Your task to perform on an android device: see creations saved in the google photos Image 0: 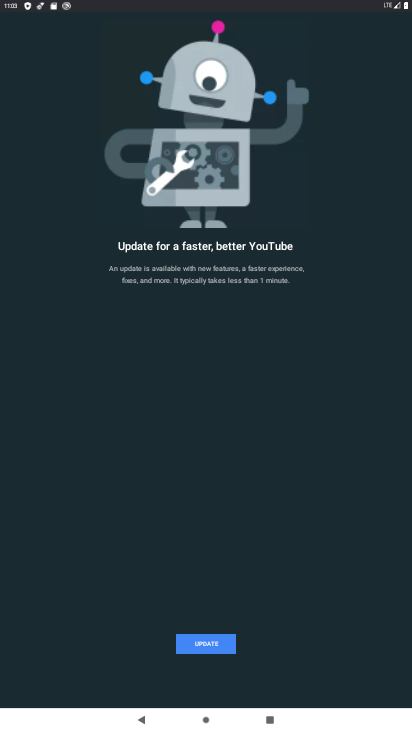
Step 0: press home button
Your task to perform on an android device: see creations saved in the google photos Image 1: 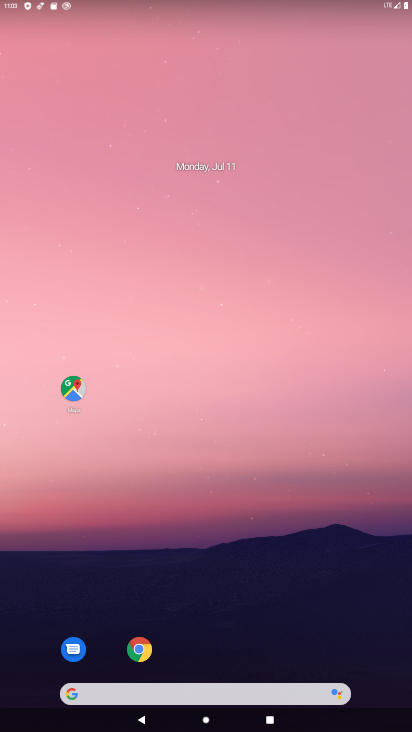
Step 1: drag from (335, 652) to (302, 145)
Your task to perform on an android device: see creations saved in the google photos Image 2: 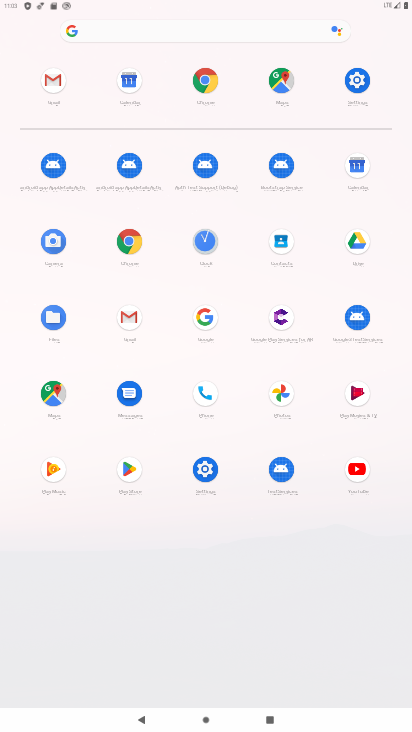
Step 2: click (284, 393)
Your task to perform on an android device: see creations saved in the google photos Image 3: 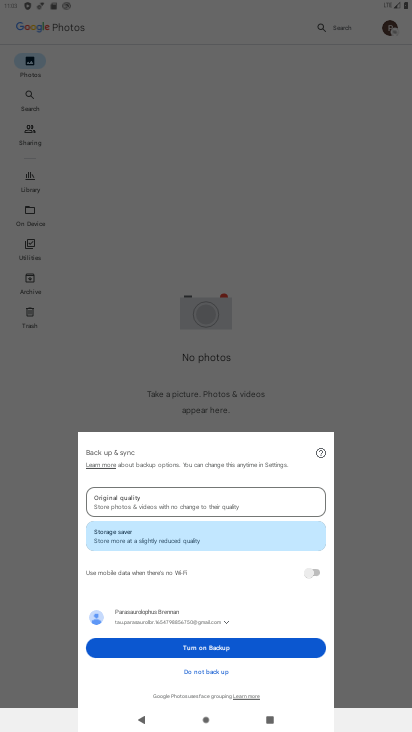
Step 3: click (237, 654)
Your task to perform on an android device: see creations saved in the google photos Image 4: 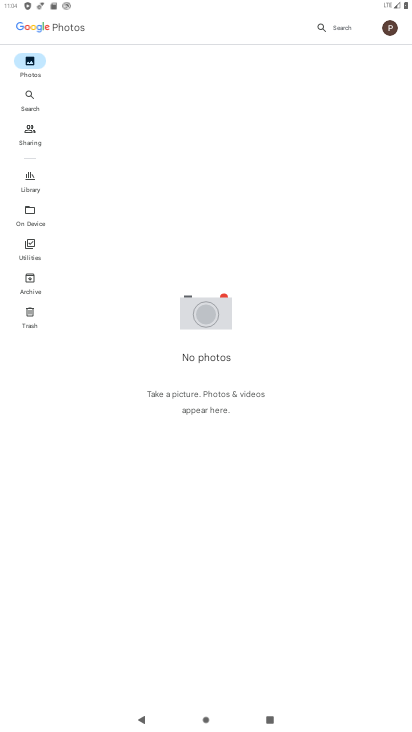
Step 4: click (31, 135)
Your task to perform on an android device: see creations saved in the google photos Image 5: 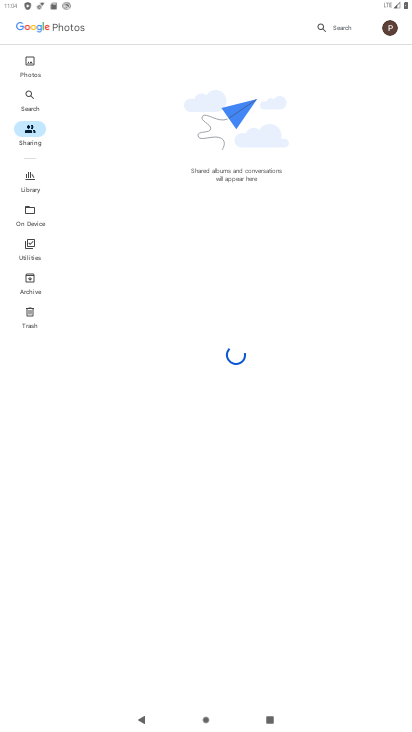
Step 5: click (33, 213)
Your task to perform on an android device: see creations saved in the google photos Image 6: 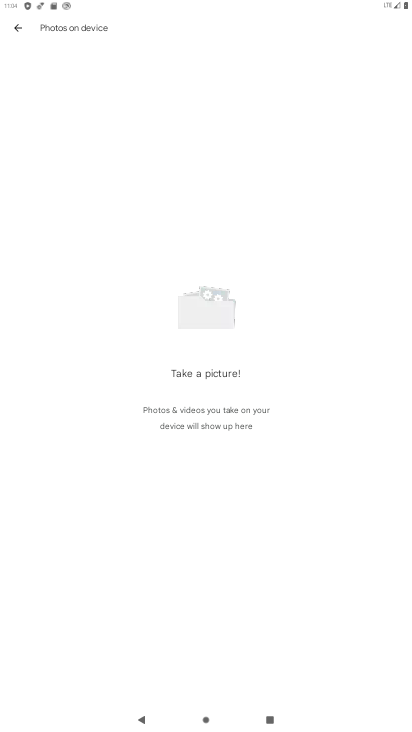
Step 6: task complete